Your task to perform on an android device: Go to calendar. Show me events next week Image 0: 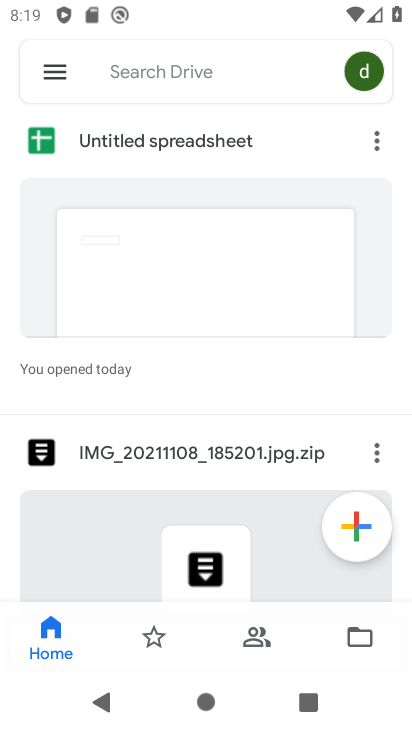
Step 0: press back button
Your task to perform on an android device: Go to calendar. Show me events next week Image 1: 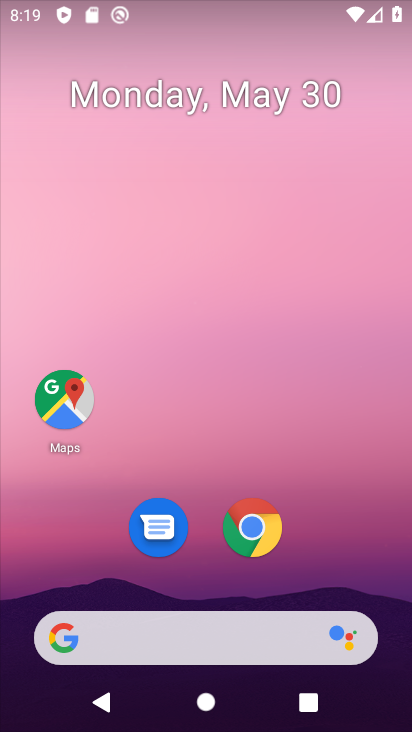
Step 1: drag from (193, 436) to (230, 127)
Your task to perform on an android device: Go to calendar. Show me events next week Image 2: 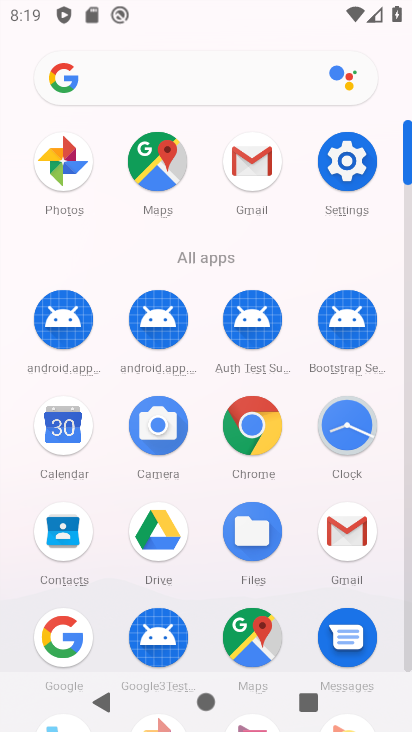
Step 2: click (63, 434)
Your task to perform on an android device: Go to calendar. Show me events next week Image 3: 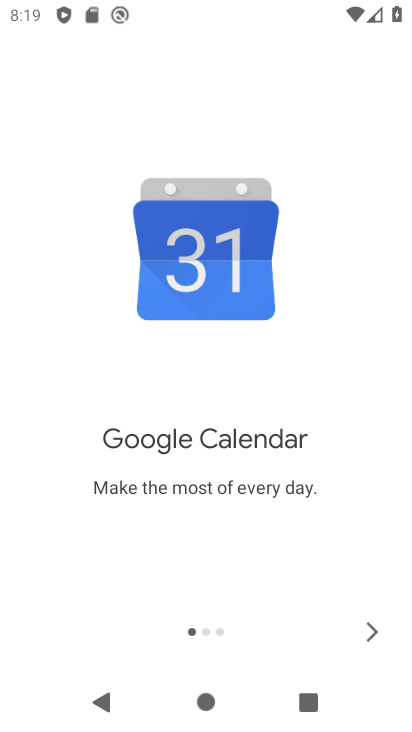
Step 3: click (374, 627)
Your task to perform on an android device: Go to calendar. Show me events next week Image 4: 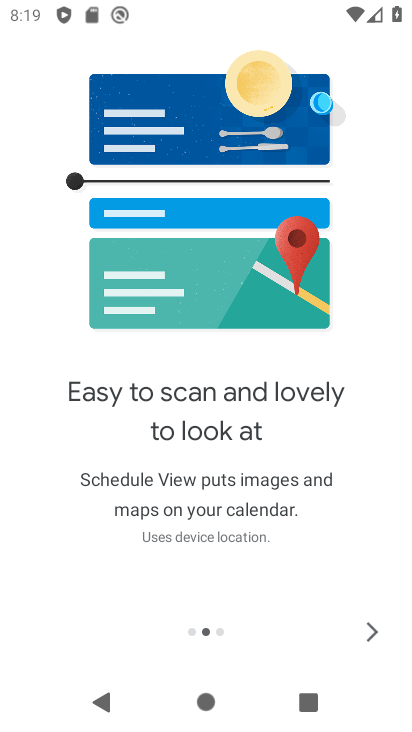
Step 4: click (374, 627)
Your task to perform on an android device: Go to calendar. Show me events next week Image 5: 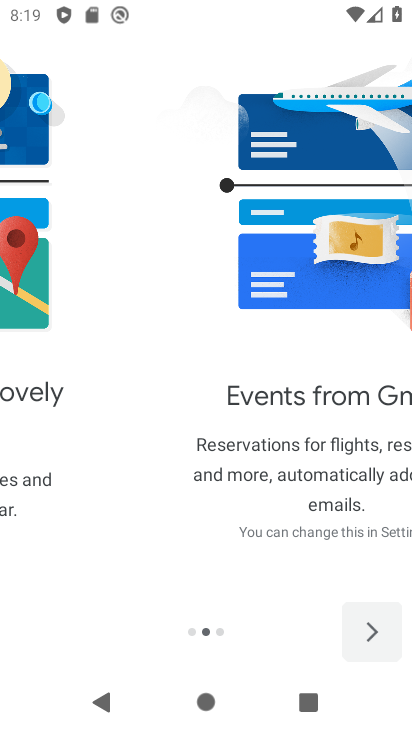
Step 5: click (374, 627)
Your task to perform on an android device: Go to calendar. Show me events next week Image 6: 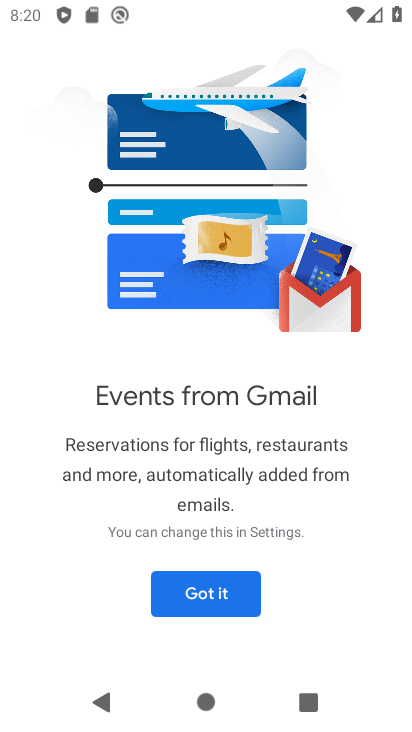
Step 6: click (191, 599)
Your task to perform on an android device: Go to calendar. Show me events next week Image 7: 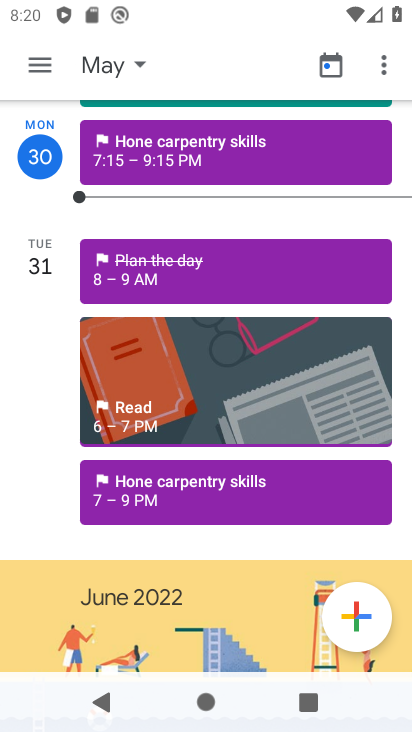
Step 7: click (40, 65)
Your task to perform on an android device: Go to calendar. Show me events next week Image 8: 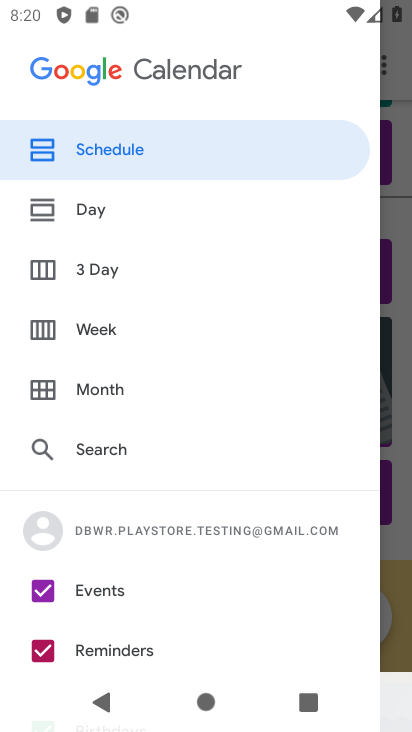
Step 8: click (102, 342)
Your task to perform on an android device: Go to calendar. Show me events next week Image 9: 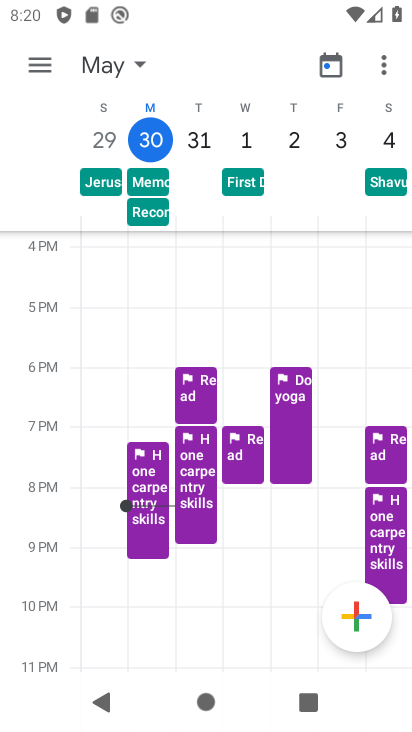
Step 9: click (118, 73)
Your task to perform on an android device: Go to calendar. Show me events next week Image 10: 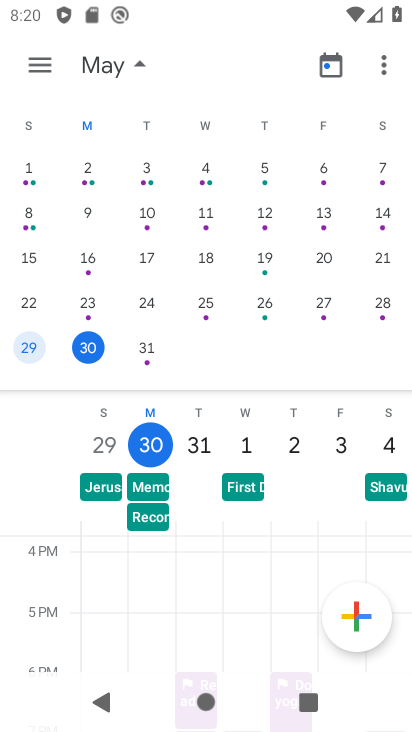
Step 10: drag from (313, 245) to (73, 224)
Your task to perform on an android device: Go to calendar. Show me events next week Image 11: 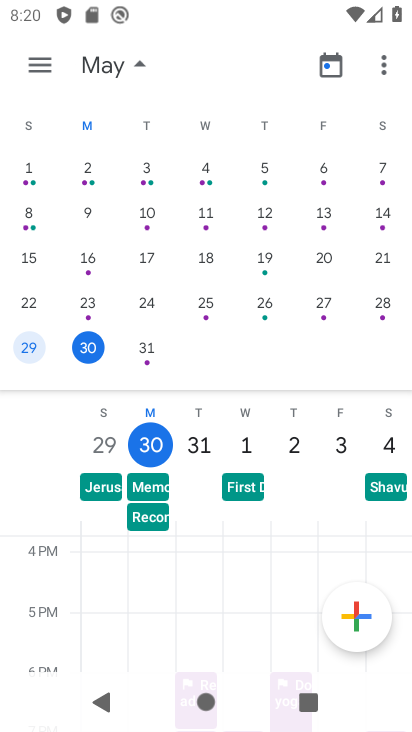
Step 11: drag from (134, 242) to (64, 244)
Your task to perform on an android device: Go to calendar. Show me events next week Image 12: 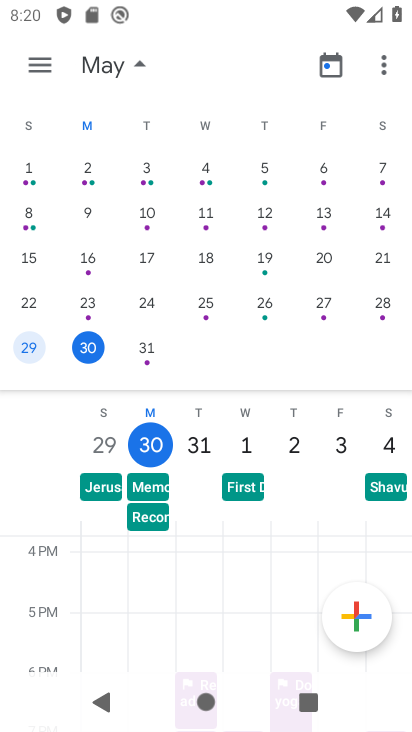
Step 12: drag from (381, 261) to (9, 216)
Your task to perform on an android device: Go to calendar. Show me events next week Image 13: 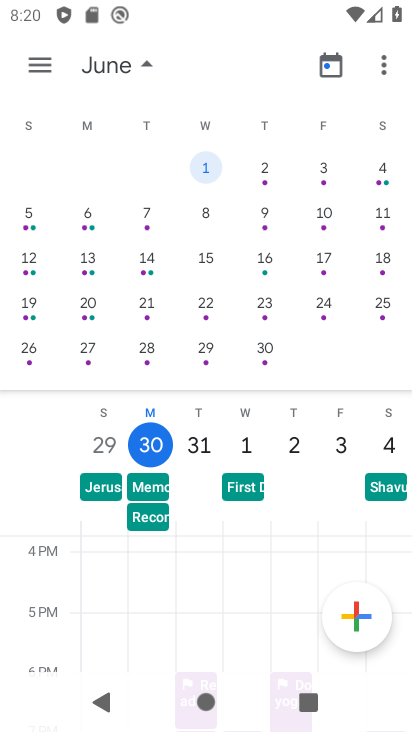
Step 13: click (29, 217)
Your task to perform on an android device: Go to calendar. Show me events next week Image 14: 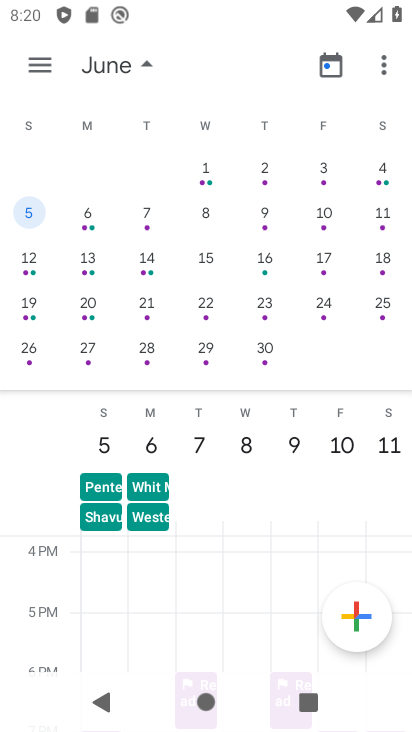
Step 14: task complete